Your task to perform on an android device: turn notification dots on Image 0: 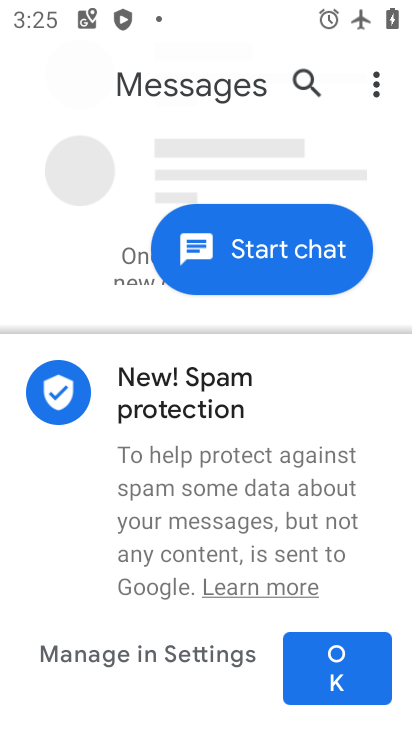
Step 0: press home button
Your task to perform on an android device: turn notification dots on Image 1: 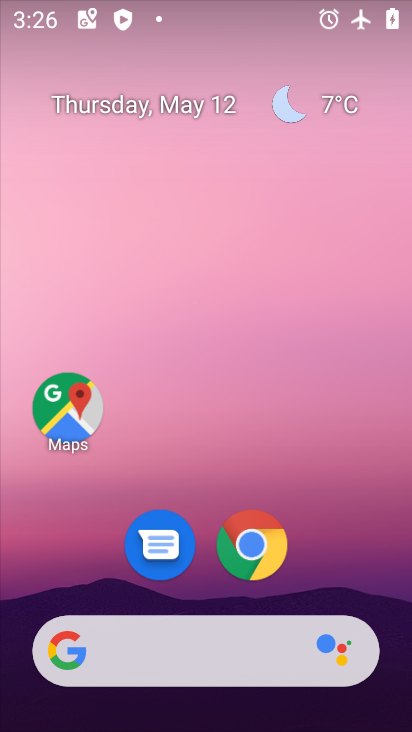
Step 1: drag from (392, 617) to (277, 53)
Your task to perform on an android device: turn notification dots on Image 2: 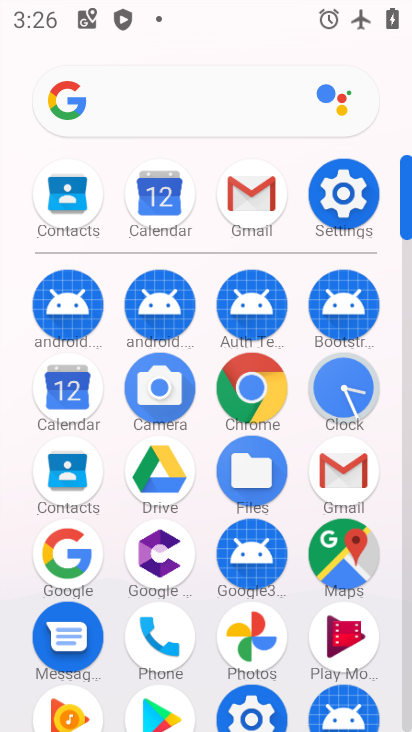
Step 2: click (406, 677)
Your task to perform on an android device: turn notification dots on Image 3: 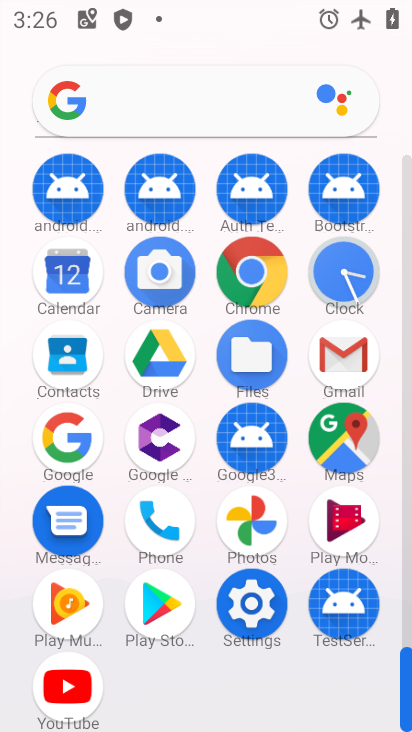
Step 3: click (248, 599)
Your task to perform on an android device: turn notification dots on Image 4: 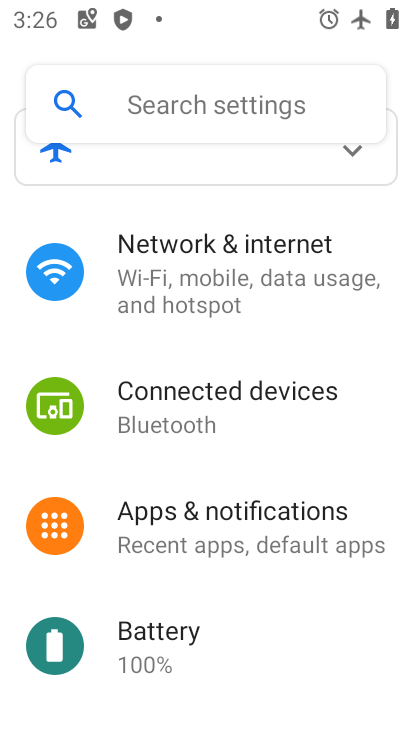
Step 4: click (251, 503)
Your task to perform on an android device: turn notification dots on Image 5: 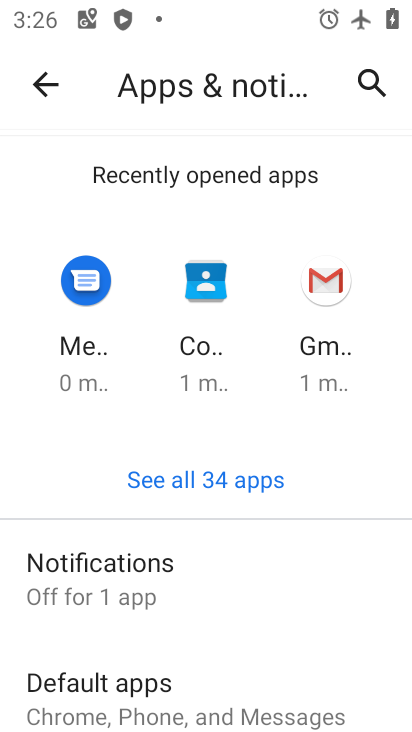
Step 5: click (121, 574)
Your task to perform on an android device: turn notification dots on Image 6: 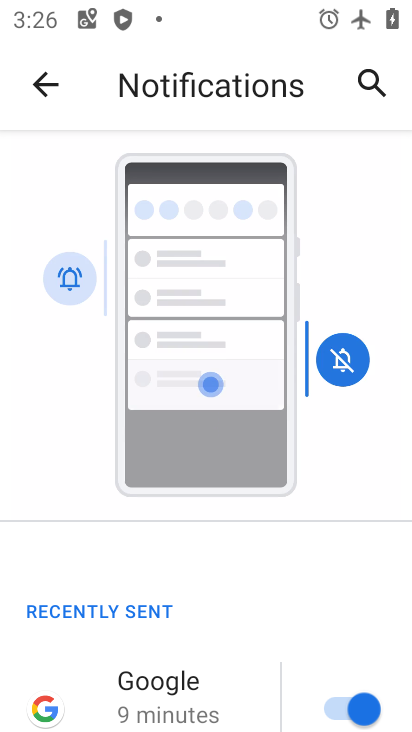
Step 6: drag from (274, 675) to (261, 194)
Your task to perform on an android device: turn notification dots on Image 7: 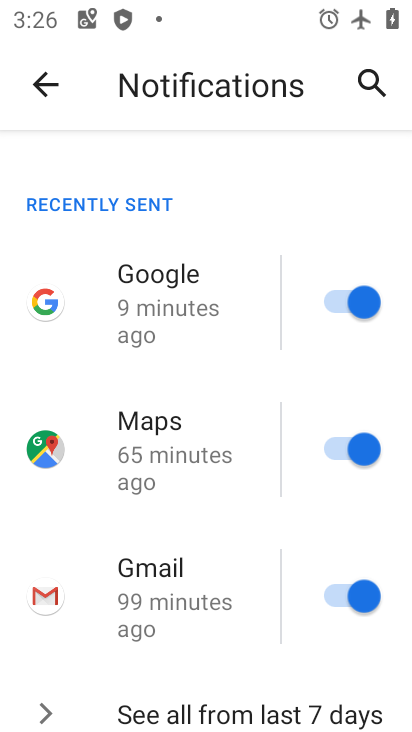
Step 7: drag from (282, 692) to (210, 53)
Your task to perform on an android device: turn notification dots on Image 8: 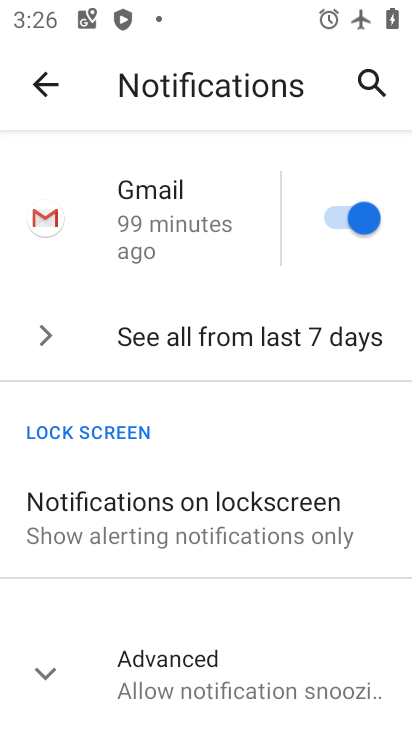
Step 8: click (112, 673)
Your task to perform on an android device: turn notification dots on Image 9: 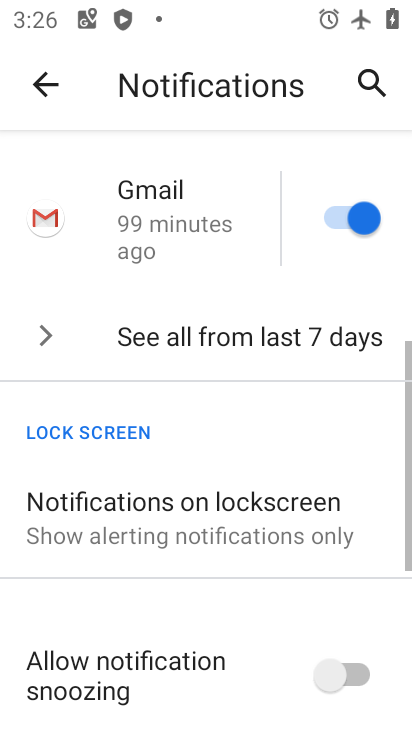
Step 9: drag from (237, 667) to (283, 158)
Your task to perform on an android device: turn notification dots on Image 10: 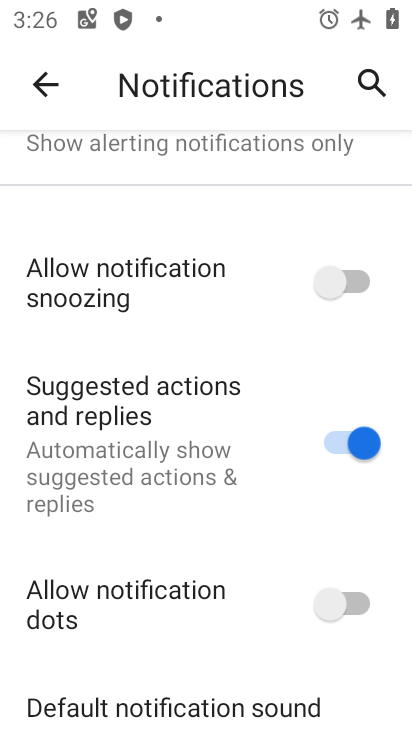
Step 10: click (363, 601)
Your task to perform on an android device: turn notification dots on Image 11: 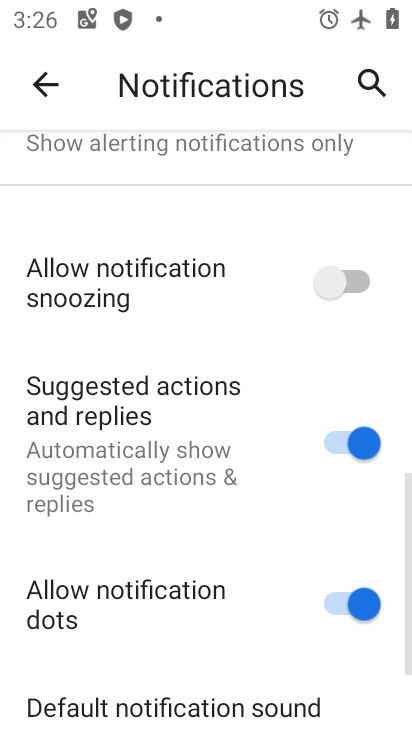
Step 11: task complete